Your task to perform on an android device: Show me the alarms in the clock app Image 0: 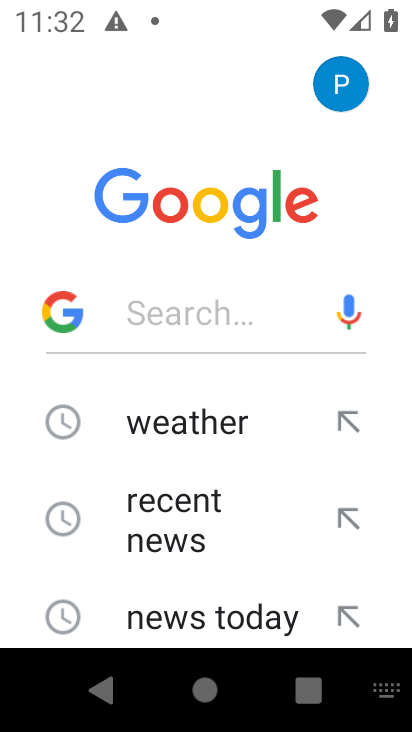
Step 0: press back button
Your task to perform on an android device: Show me the alarms in the clock app Image 1: 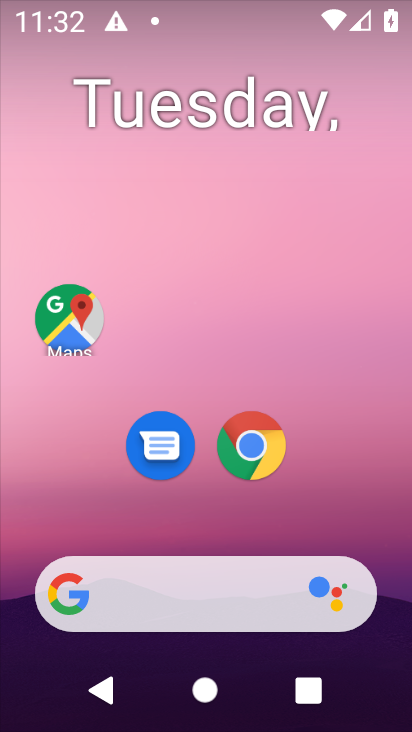
Step 1: drag from (232, 527) to (232, 3)
Your task to perform on an android device: Show me the alarms in the clock app Image 2: 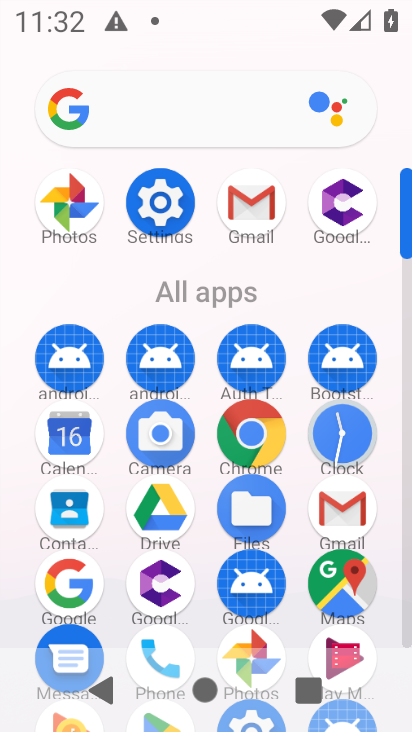
Step 2: click (352, 445)
Your task to perform on an android device: Show me the alarms in the clock app Image 3: 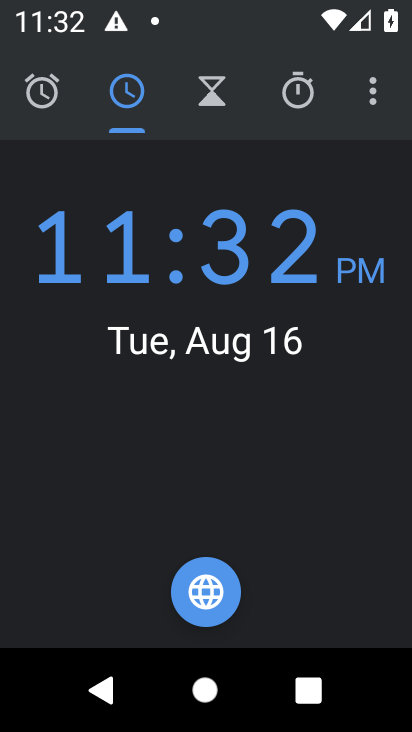
Step 3: click (19, 78)
Your task to perform on an android device: Show me the alarms in the clock app Image 4: 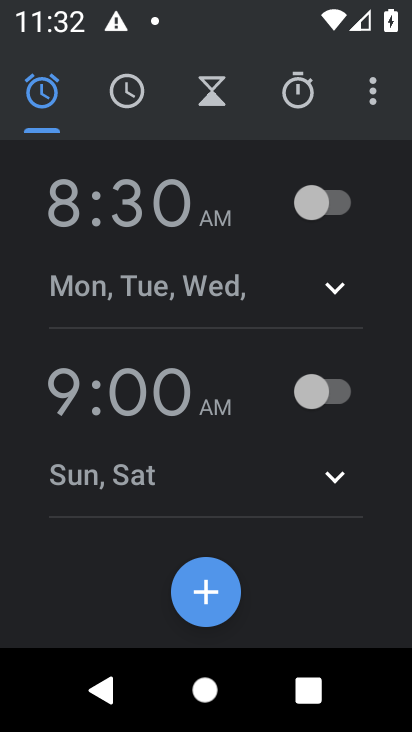
Step 4: task complete